Your task to perform on an android device: Open the stopwatch Image 0: 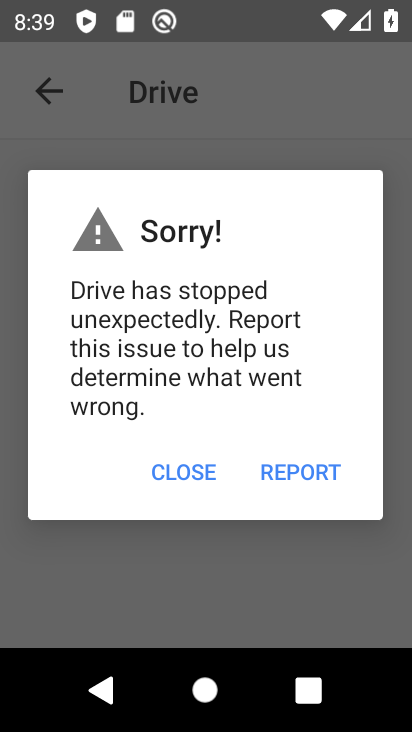
Step 0: press home button
Your task to perform on an android device: Open the stopwatch Image 1: 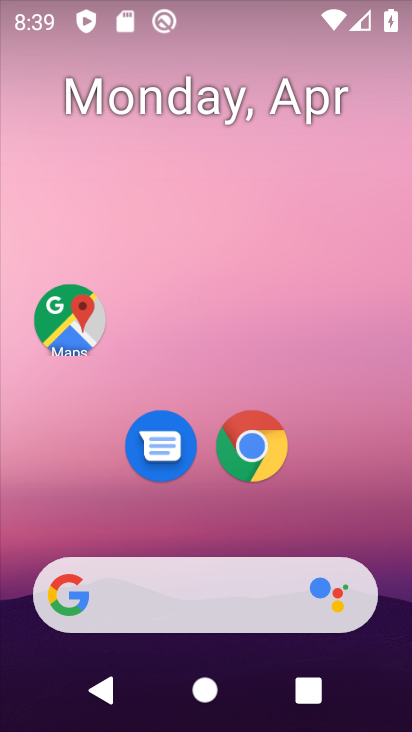
Step 1: drag from (332, 516) to (318, 67)
Your task to perform on an android device: Open the stopwatch Image 2: 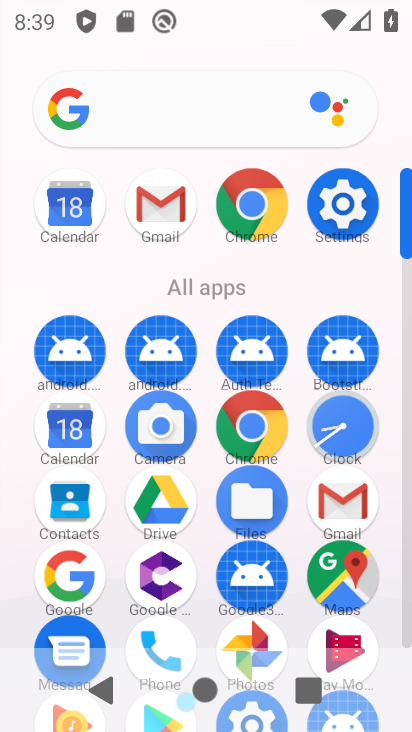
Step 2: click (331, 432)
Your task to perform on an android device: Open the stopwatch Image 3: 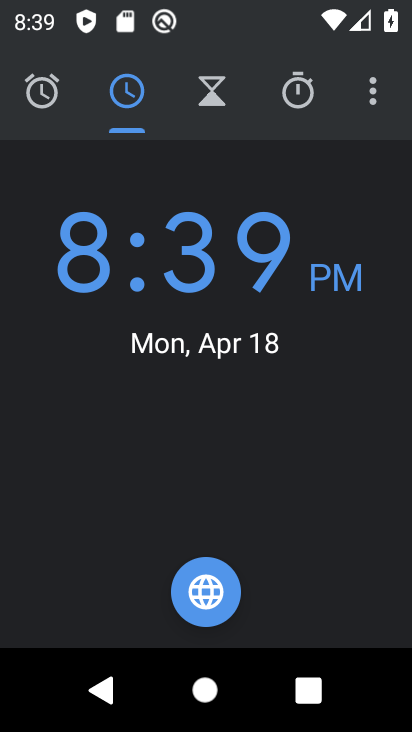
Step 3: click (296, 92)
Your task to perform on an android device: Open the stopwatch Image 4: 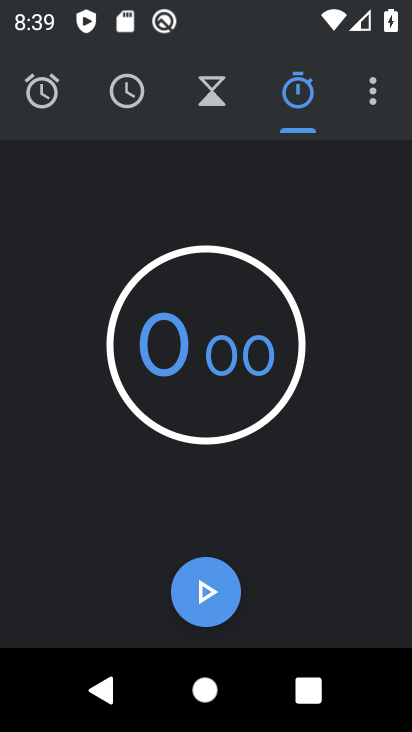
Step 4: task complete